Your task to perform on an android device: toggle pop-ups in chrome Image 0: 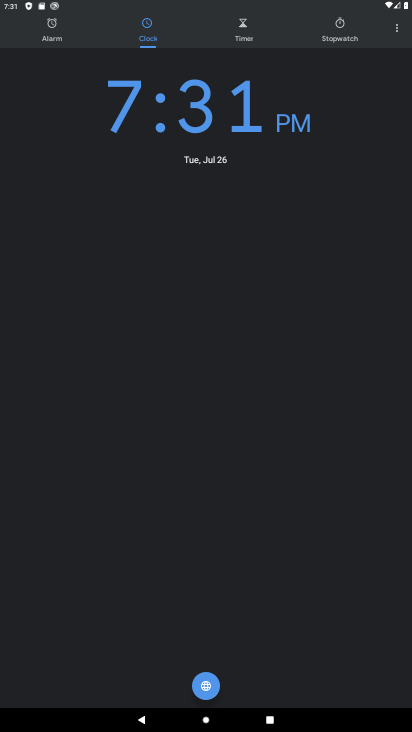
Step 0: press home button
Your task to perform on an android device: toggle pop-ups in chrome Image 1: 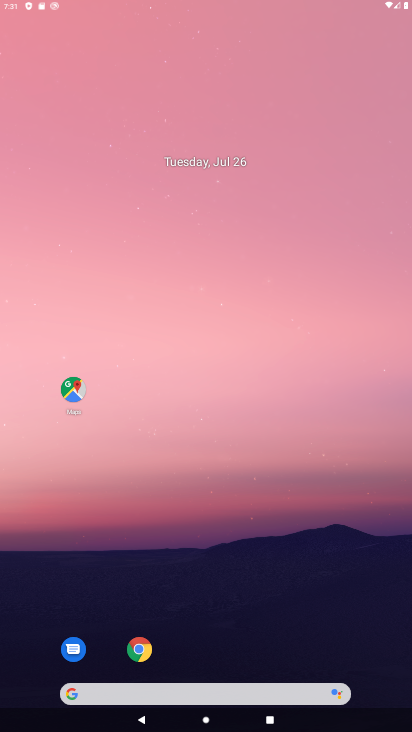
Step 1: drag from (249, 585) to (243, 126)
Your task to perform on an android device: toggle pop-ups in chrome Image 2: 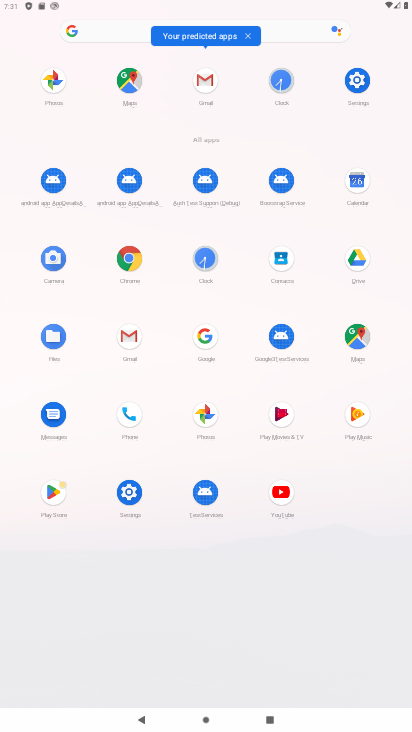
Step 2: click (121, 265)
Your task to perform on an android device: toggle pop-ups in chrome Image 3: 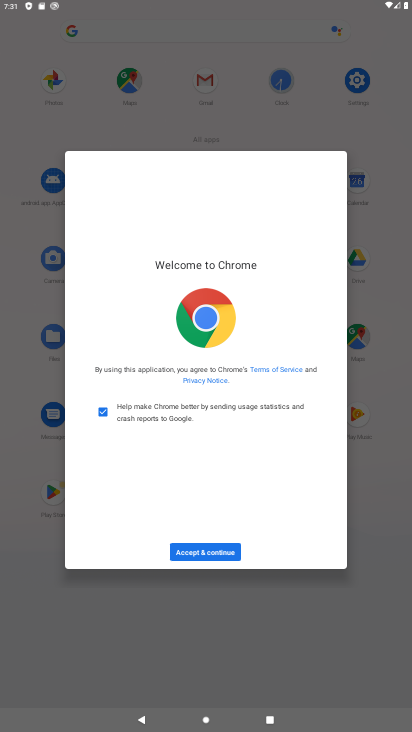
Step 3: click (203, 555)
Your task to perform on an android device: toggle pop-ups in chrome Image 4: 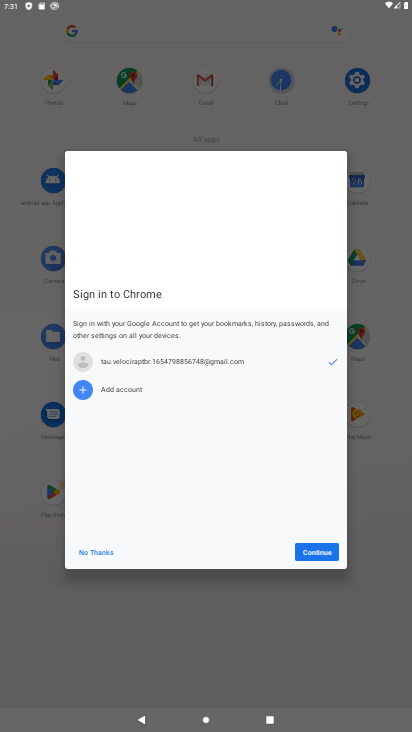
Step 4: click (302, 551)
Your task to perform on an android device: toggle pop-ups in chrome Image 5: 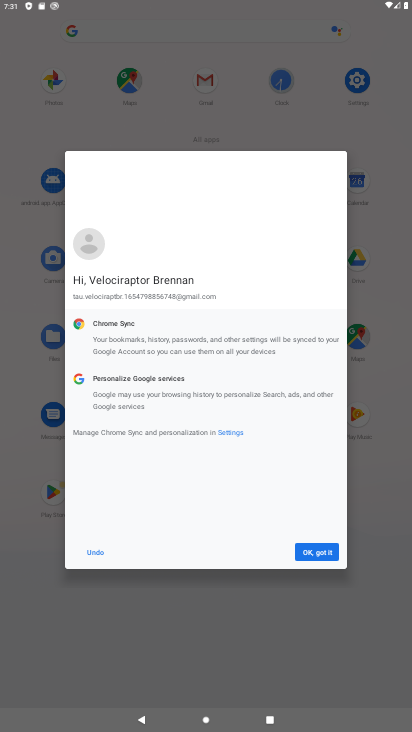
Step 5: click (312, 551)
Your task to perform on an android device: toggle pop-ups in chrome Image 6: 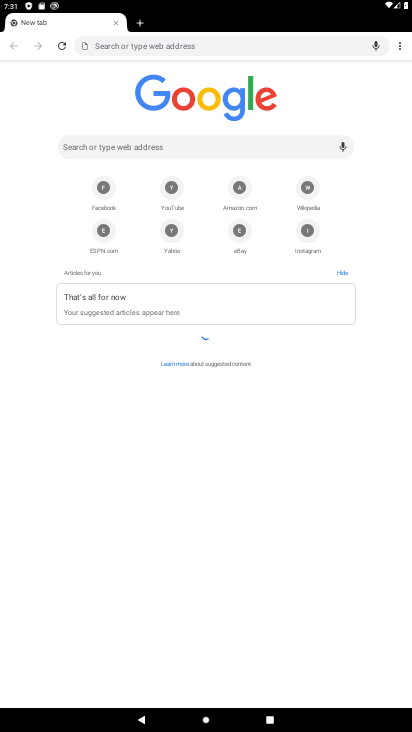
Step 6: click (397, 44)
Your task to perform on an android device: toggle pop-ups in chrome Image 7: 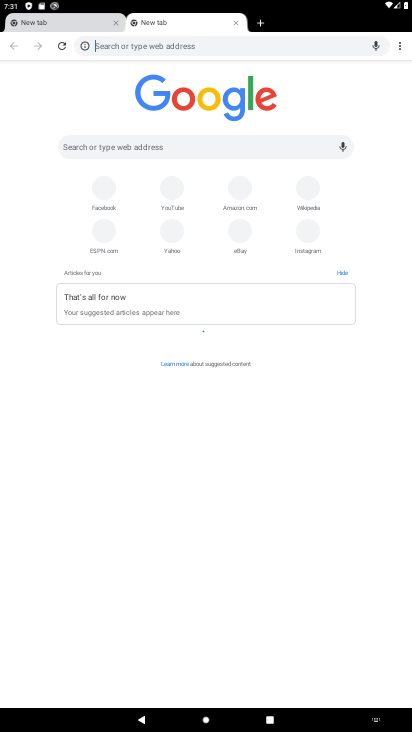
Step 7: click (406, 42)
Your task to perform on an android device: toggle pop-ups in chrome Image 8: 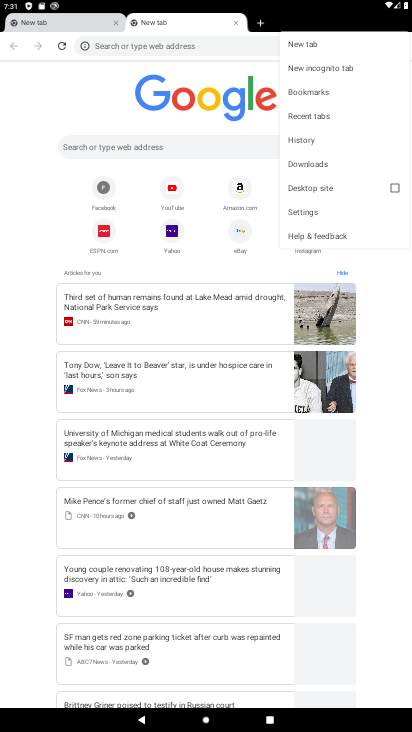
Step 8: click (303, 212)
Your task to perform on an android device: toggle pop-ups in chrome Image 9: 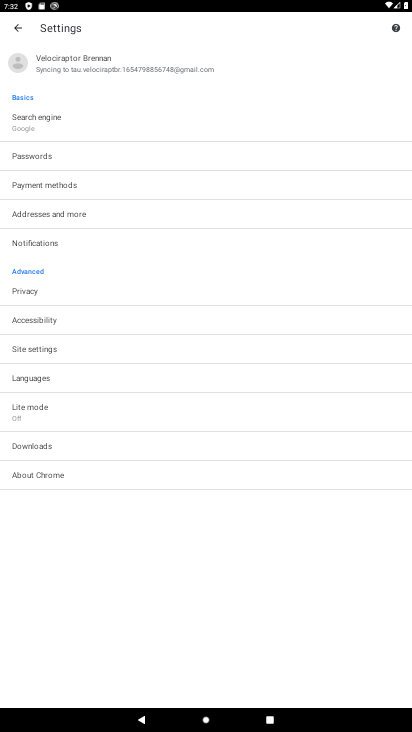
Step 9: click (75, 352)
Your task to perform on an android device: toggle pop-ups in chrome Image 10: 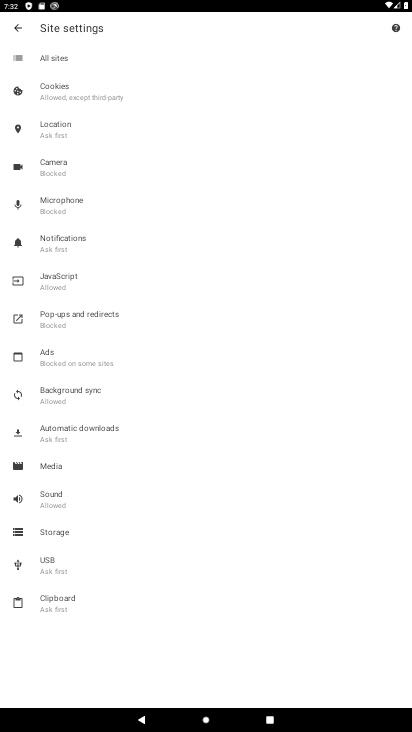
Step 10: click (99, 318)
Your task to perform on an android device: toggle pop-ups in chrome Image 11: 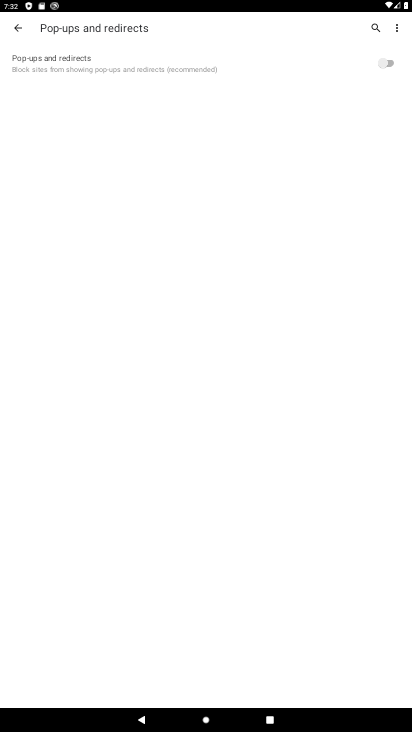
Step 11: click (394, 57)
Your task to perform on an android device: toggle pop-ups in chrome Image 12: 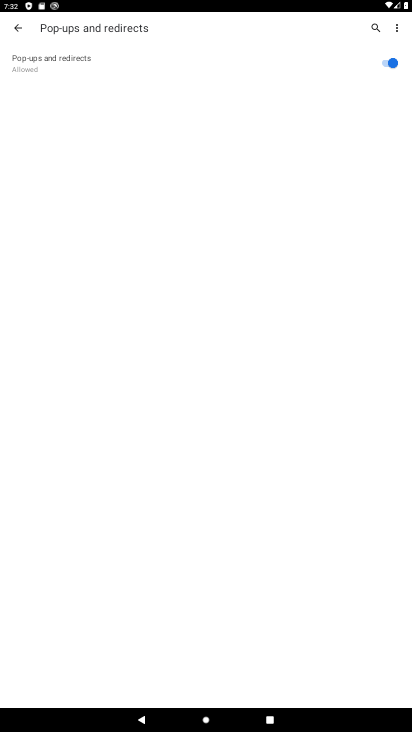
Step 12: task complete